Your task to perform on an android device: turn on airplane mode Image 0: 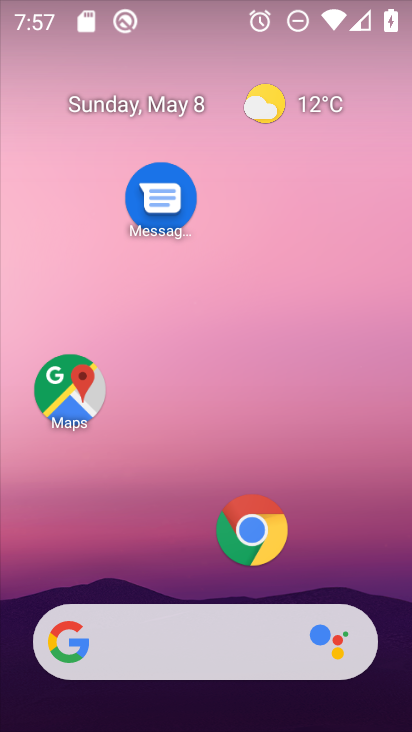
Step 0: drag from (195, 568) to (218, 0)
Your task to perform on an android device: turn on airplane mode Image 1: 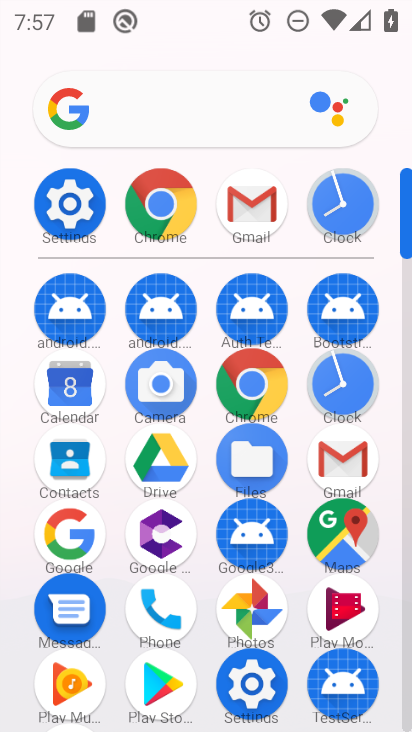
Step 1: drag from (207, 15) to (207, 726)
Your task to perform on an android device: turn on airplane mode Image 2: 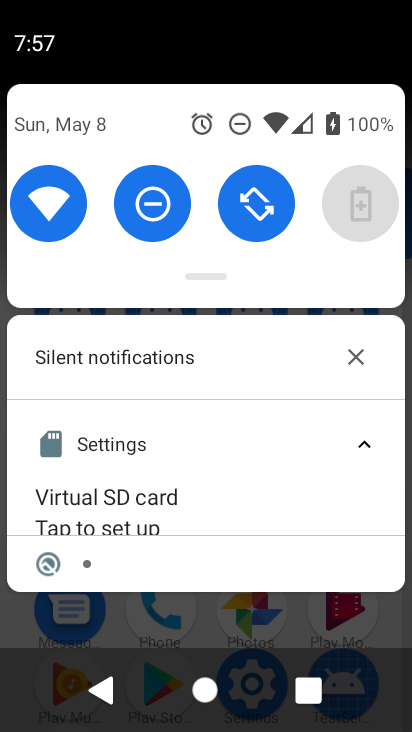
Step 2: drag from (219, 269) to (272, 718)
Your task to perform on an android device: turn on airplane mode Image 3: 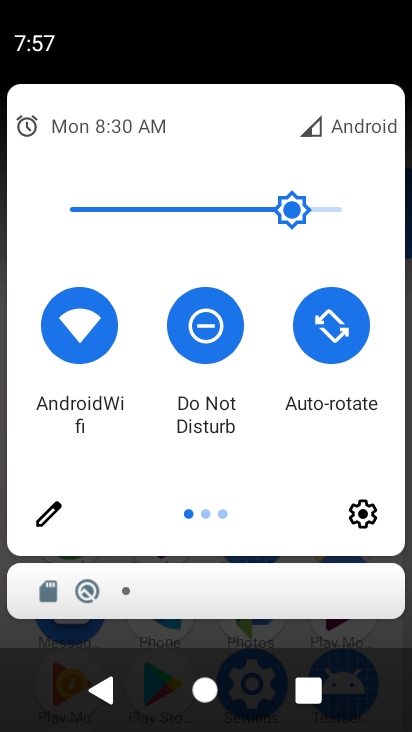
Step 3: drag from (347, 370) to (52, 382)
Your task to perform on an android device: turn on airplane mode Image 4: 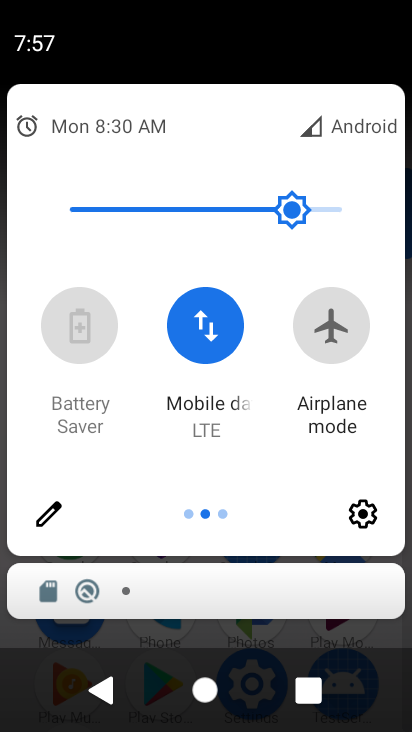
Step 4: click (337, 334)
Your task to perform on an android device: turn on airplane mode Image 5: 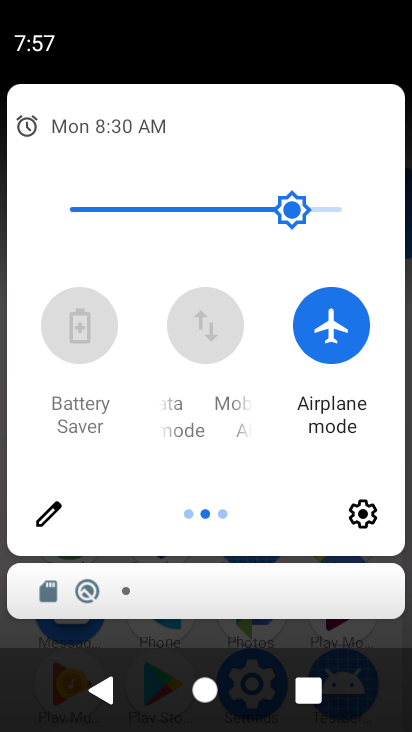
Step 5: task complete